Your task to perform on an android device: install app "Google Docs" Image 0: 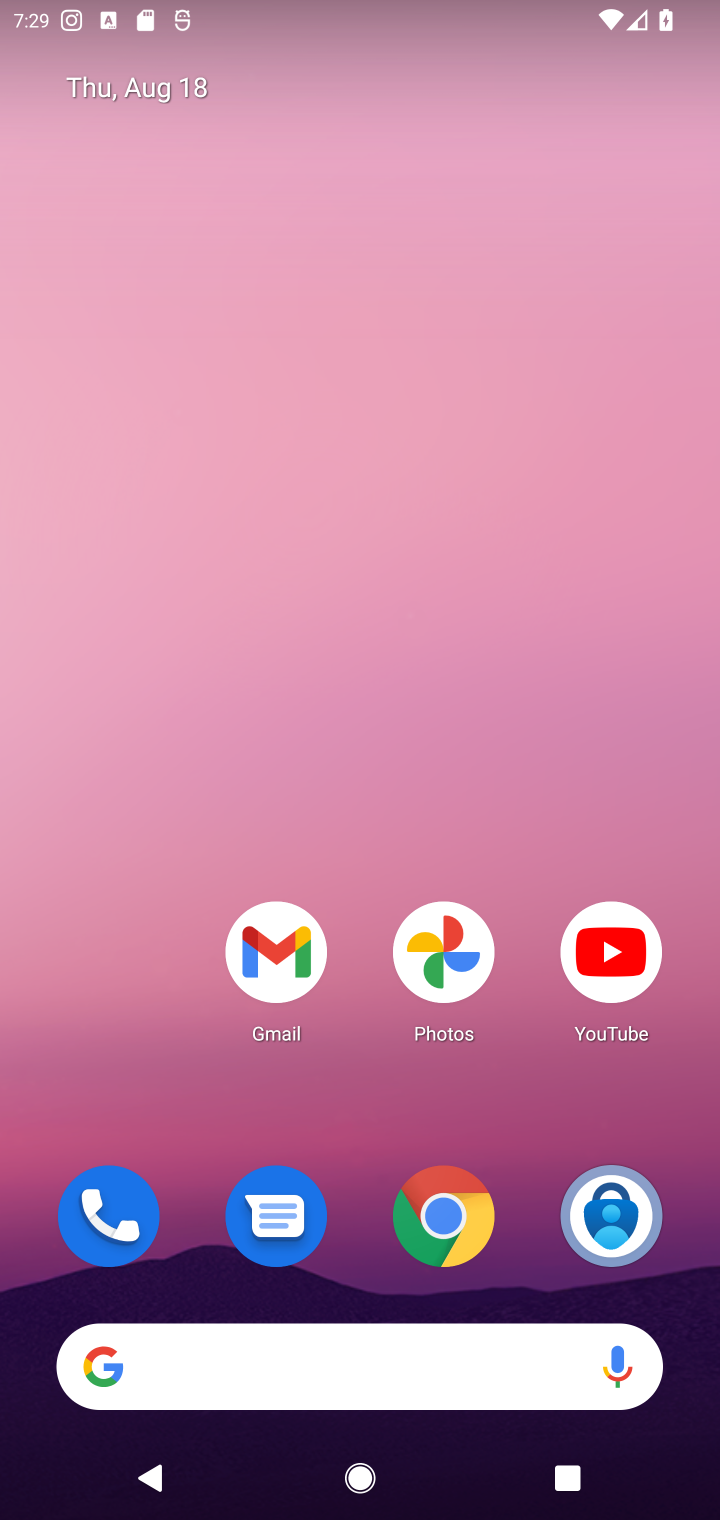
Step 0: drag from (378, 917) to (378, 362)
Your task to perform on an android device: install app "Google Docs" Image 1: 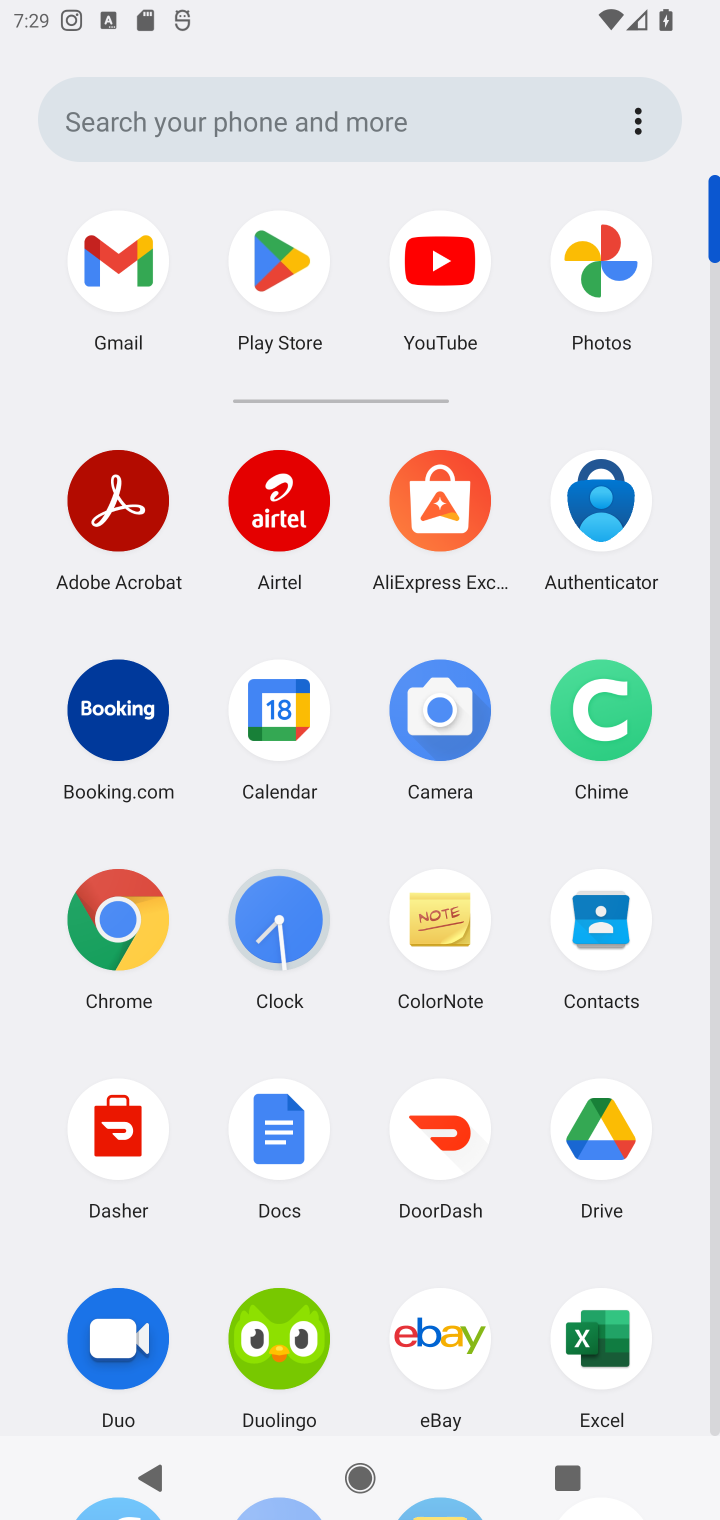
Step 1: click (280, 313)
Your task to perform on an android device: install app "Google Docs" Image 2: 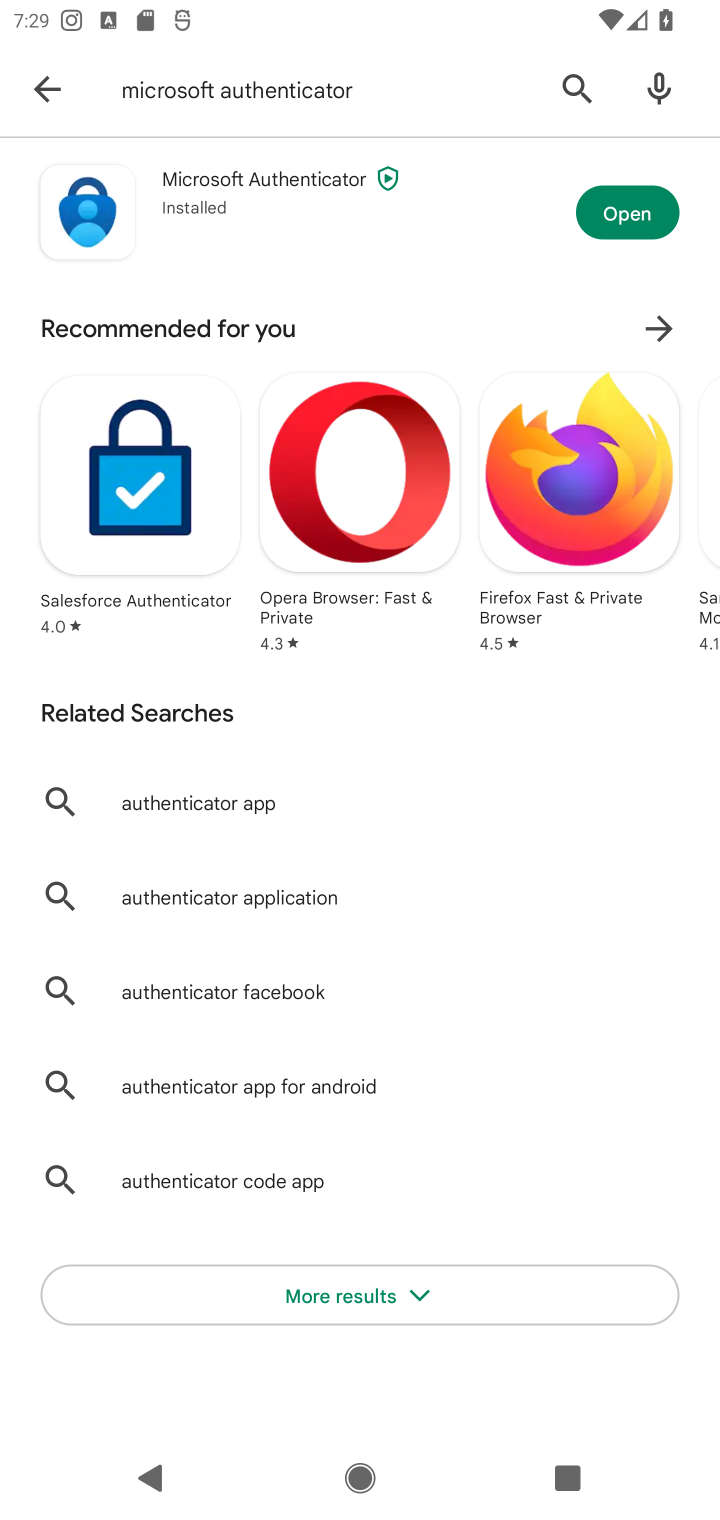
Step 2: click (571, 101)
Your task to perform on an android device: install app "Google Docs" Image 3: 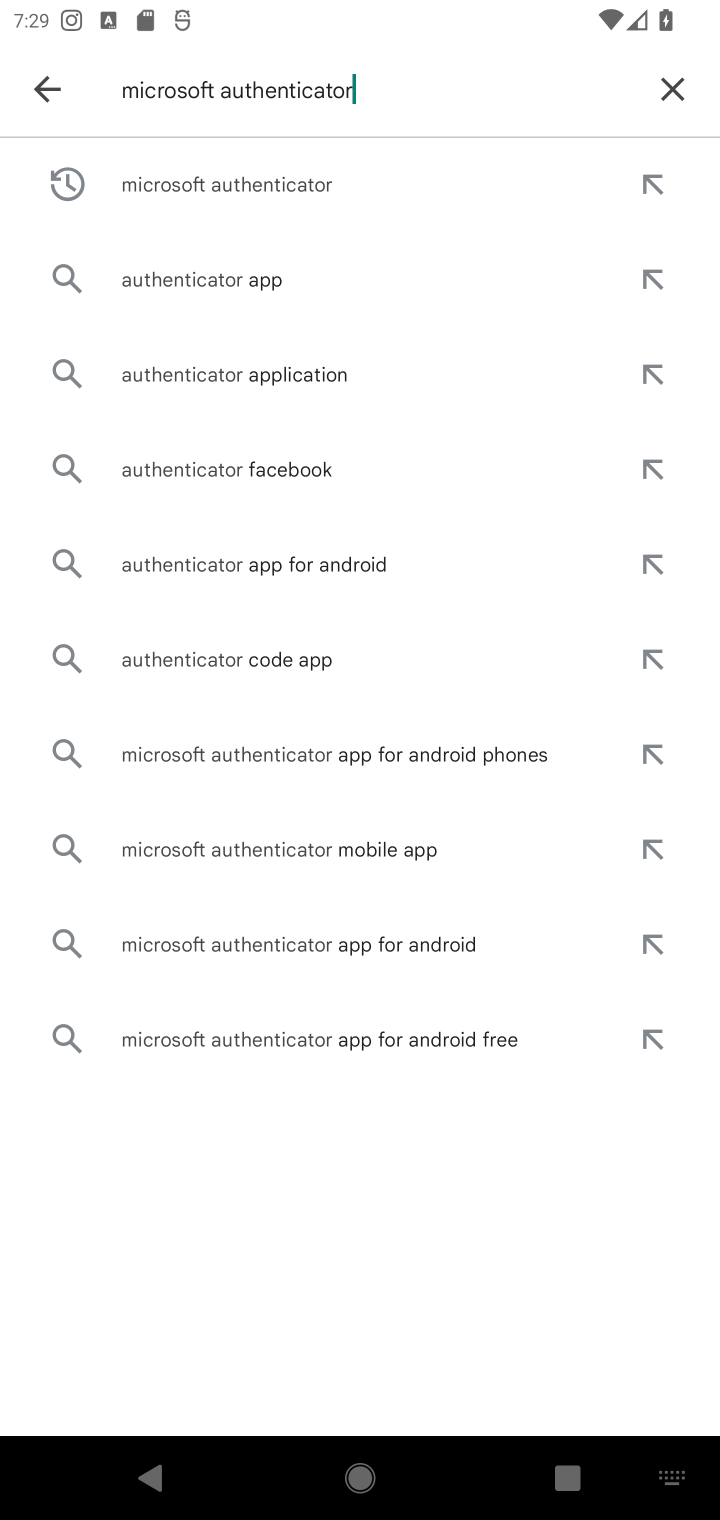
Step 3: click (651, 84)
Your task to perform on an android device: install app "Google Docs" Image 4: 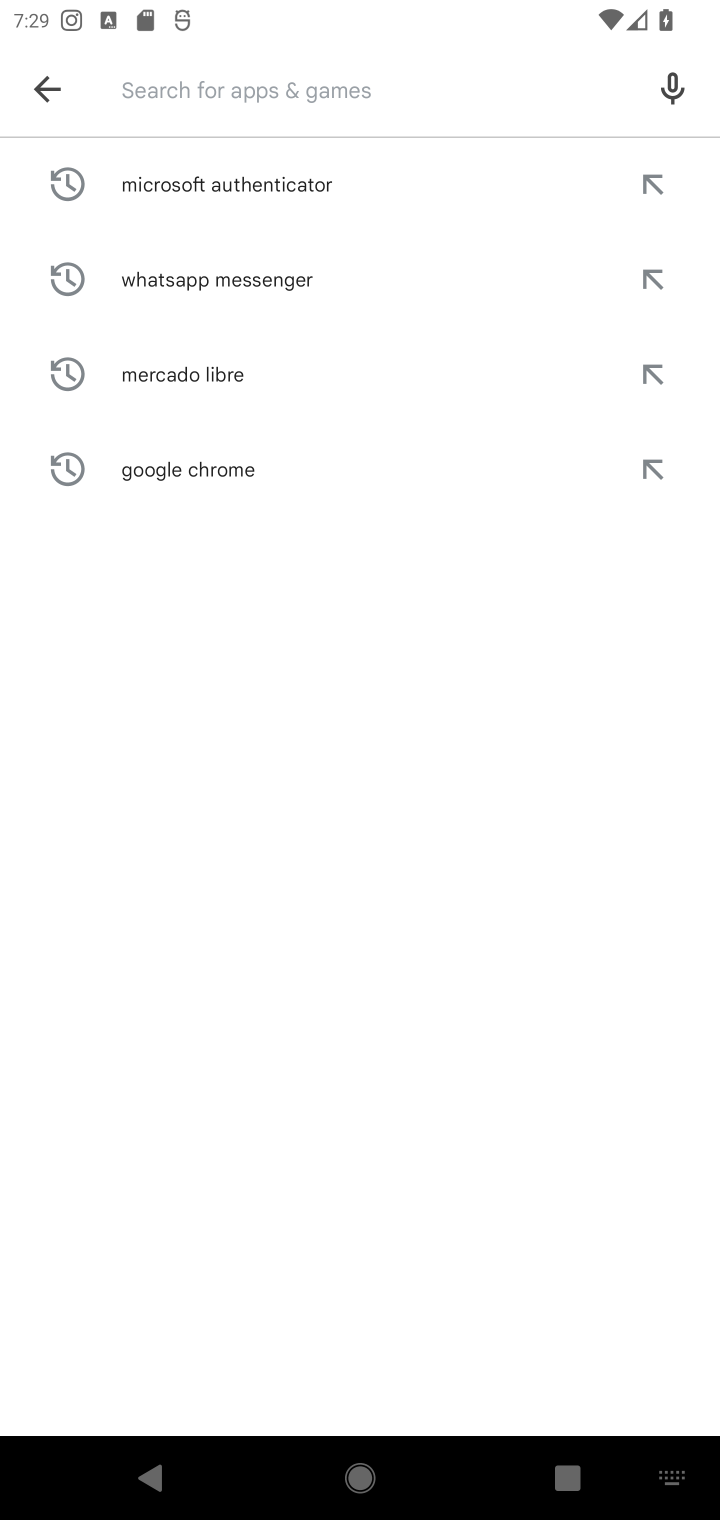
Step 4: type "Google Docs"
Your task to perform on an android device: install app "Google Docs" Image 5: 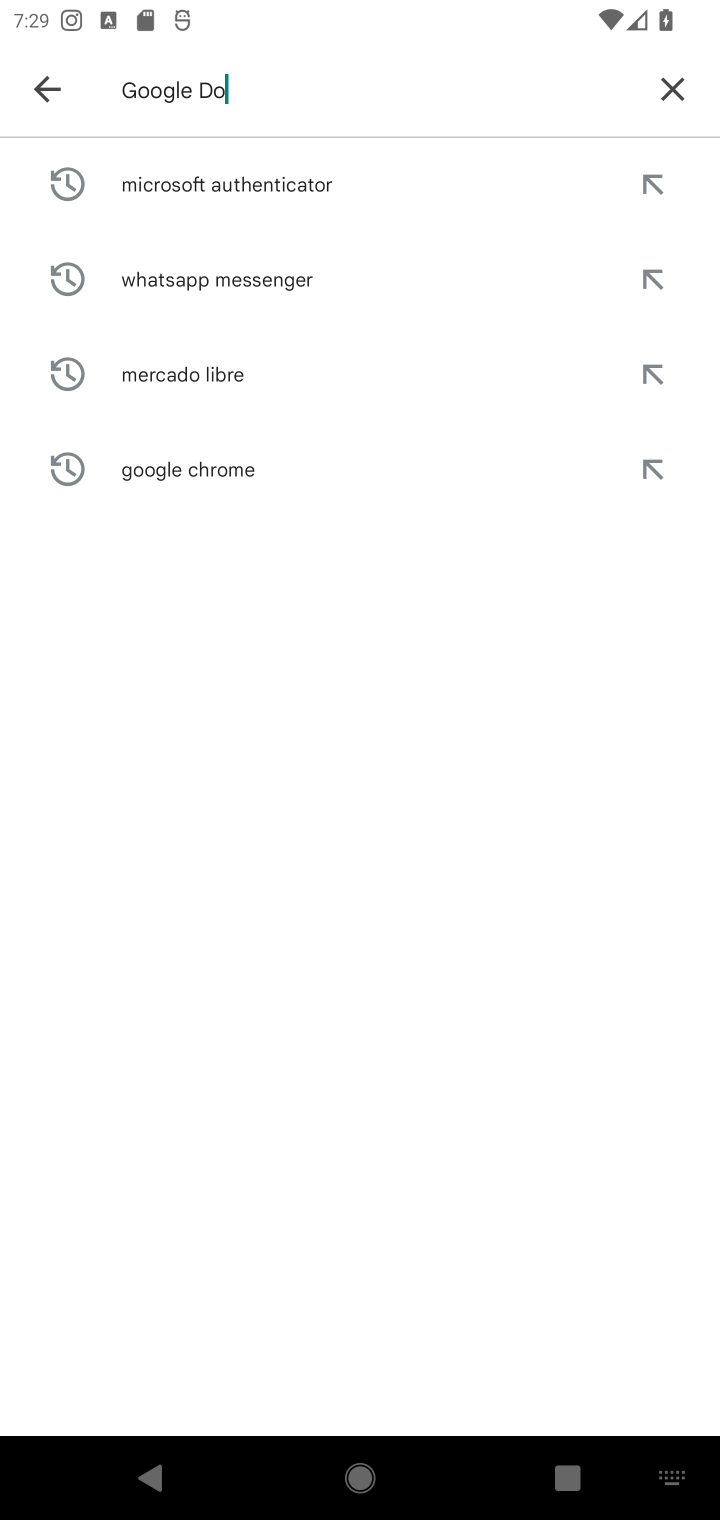
Step 5: type ""
Your task to perform on an android device: install app "Google Docs" Image 6: 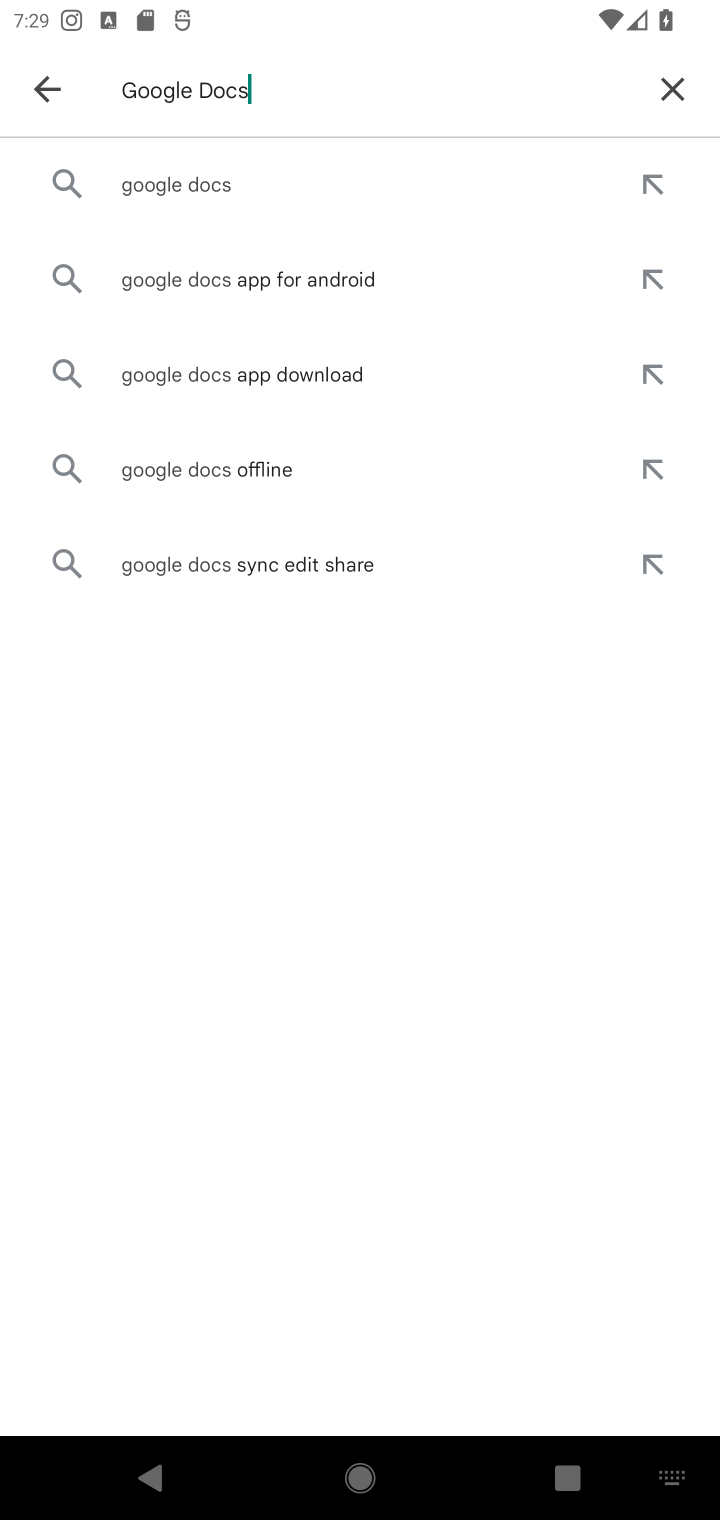
Step 6: click (288, 185)
Your task to perform on an android device: install app "Google Docs" Image 7: 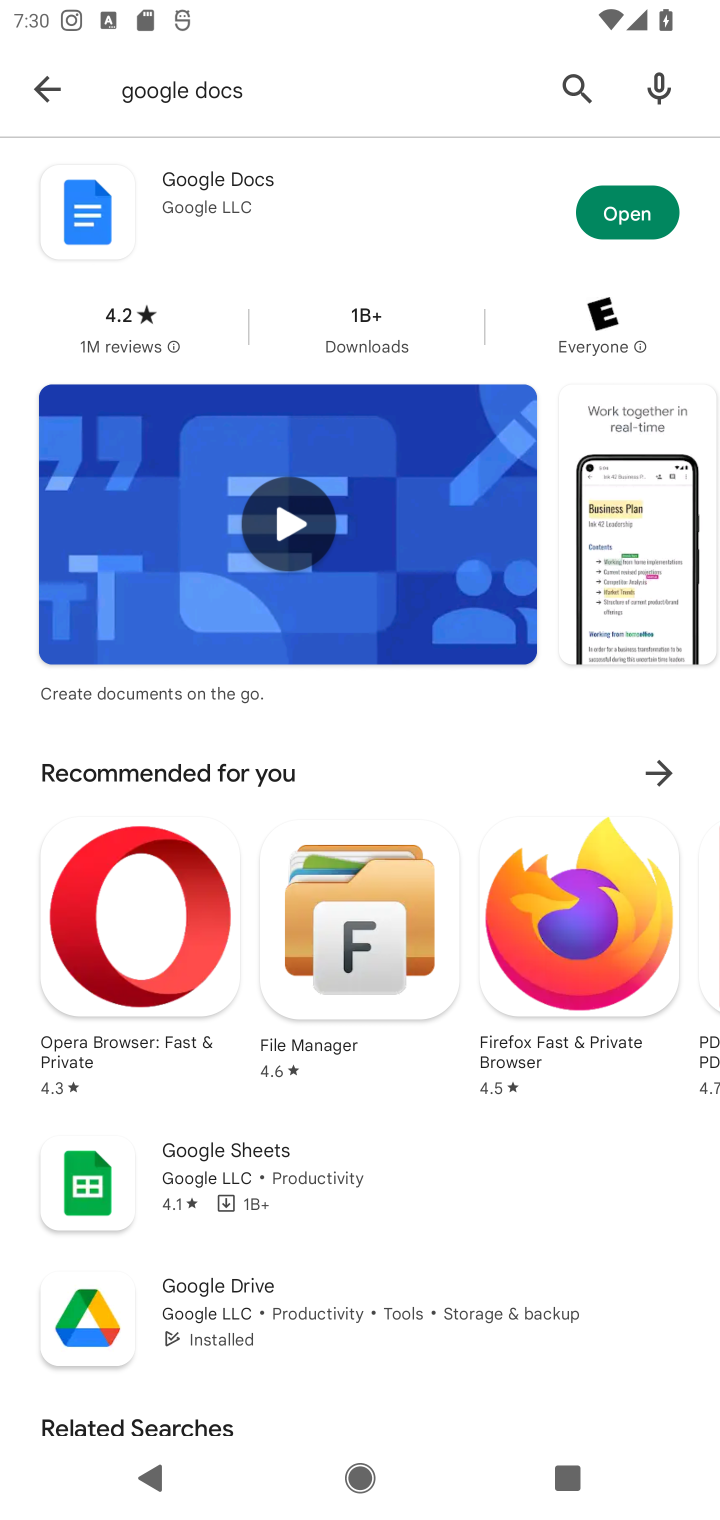
Step 7: task complete